Your task to perform on an android device: check data usage Image 0: 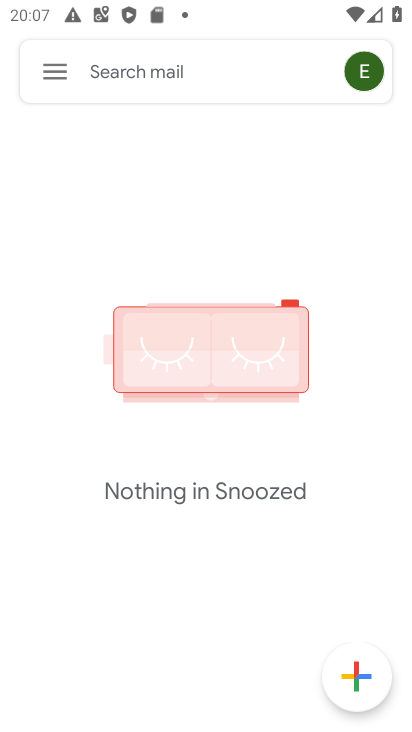
Step 0: press home button
Your task to perform on an android device: check data usage Image 1: 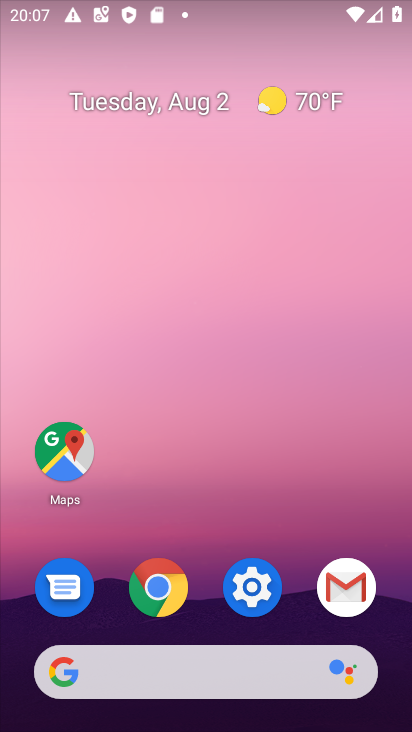
Step 1: click (266, 592)
Your task to perform on an android device: check data usage Image 2: 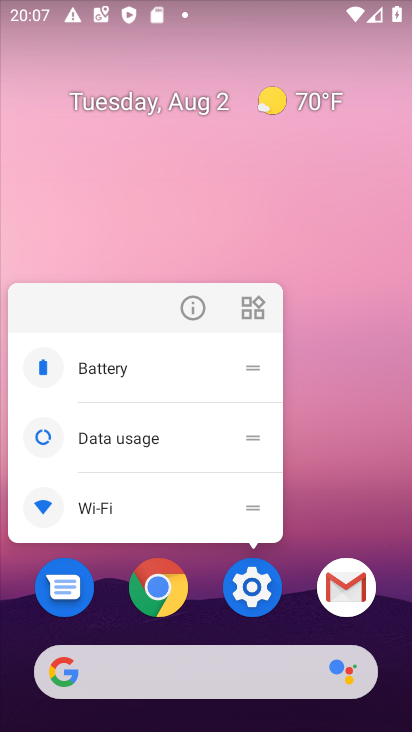
Step 2: click (268, 596)
Your task to perform on an android device: check data usage Image 3: 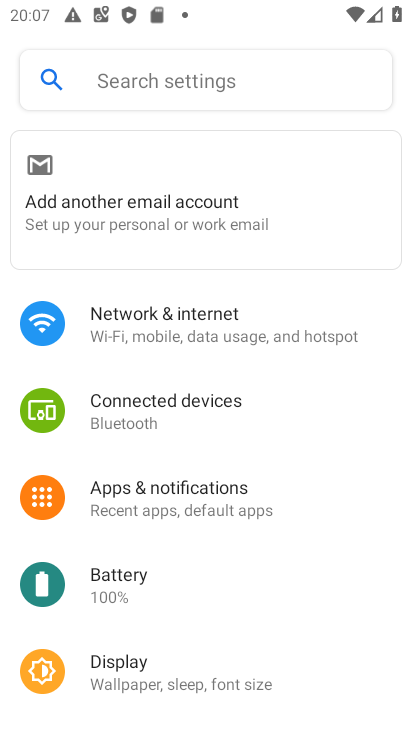
Step 3: click (159, 90)
Your task to perform on an android device: check data usage Image 4: 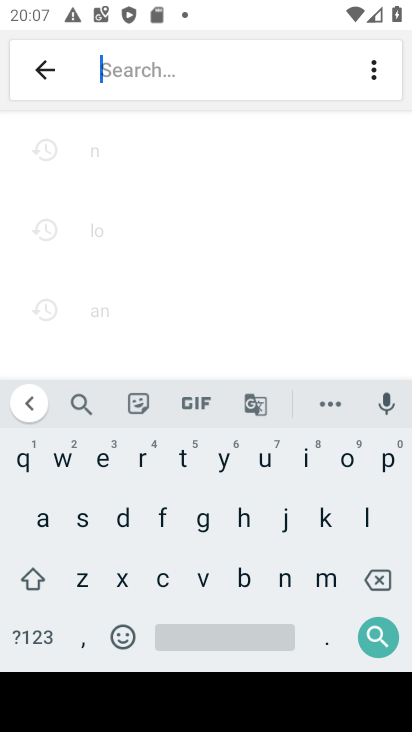
Step 4: click (120, 518)
Your task to perform on an android device: check data usage Image 5: 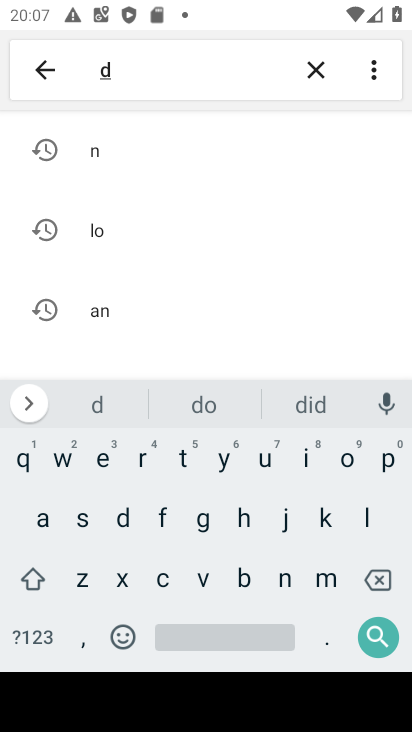
Step 5: click (43, 516)
Your task to perform on an android device: check data usage Image 6: 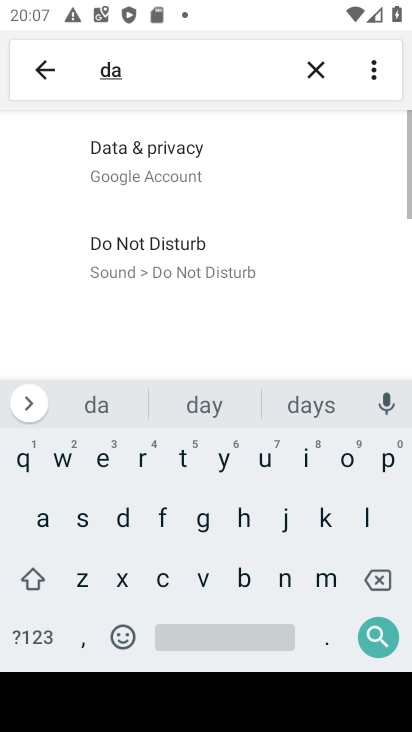
Step 6: click (180, 459)
Your task to perform on an android device: check data usage Image 7: 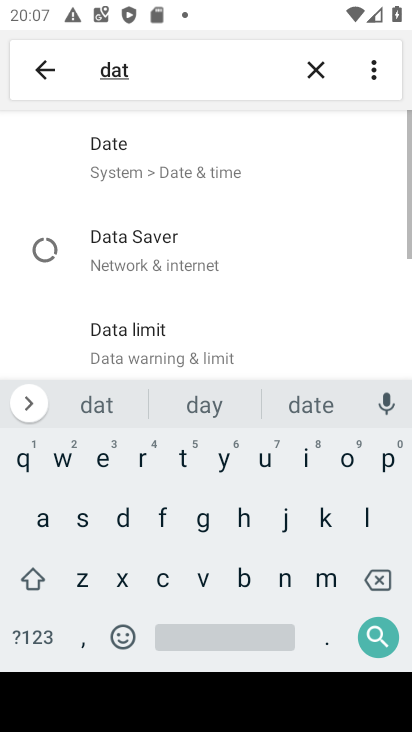
Step 7: click (38, 520)
Your task to perform on an android device: check data usage Image 8: 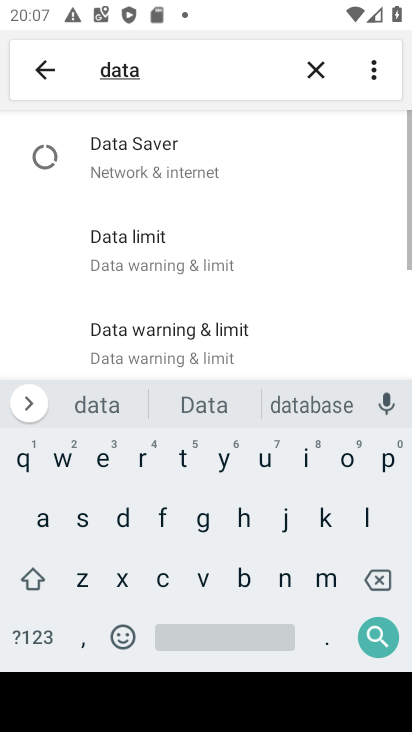
Step 8: click (203, 632)
Your task to perform on an android device: check data usage Image 9: 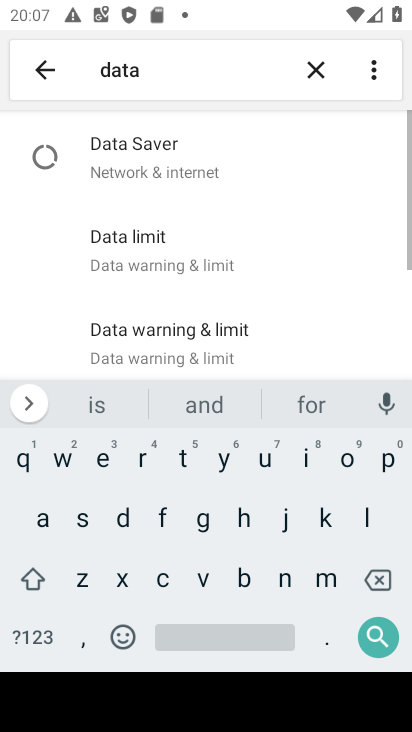
Step 9: click (254, 456)
Your task to perform on an android device: check data usage Image 10: 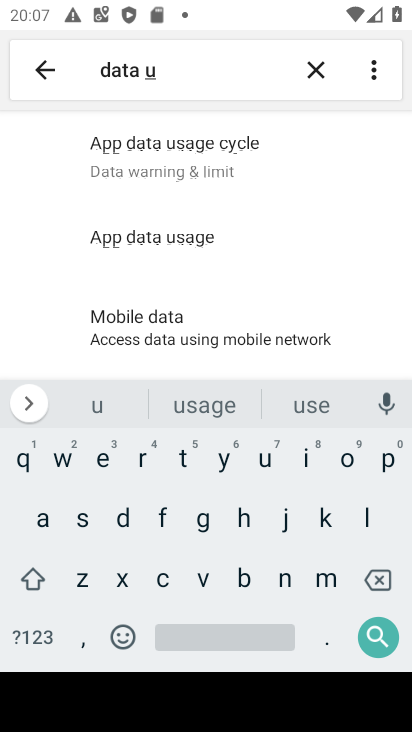
Step 10: click (140, 163)
Your task to perform on an android device: check data usage Image 11: 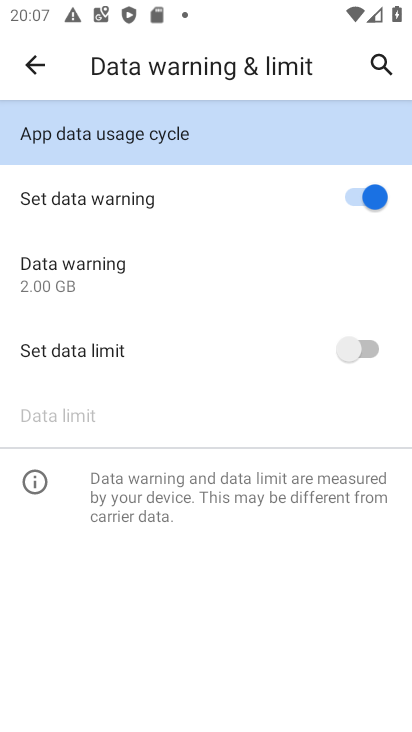
Step 11: click (78, 129)
Your task to perform on an android device: check data usage Image 12: 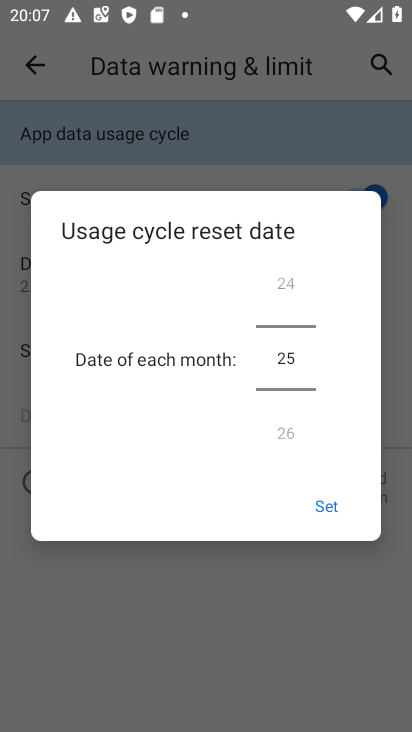
Step 12: click (317, 508)
Your task to perform on an android device: check data usage Image 13: 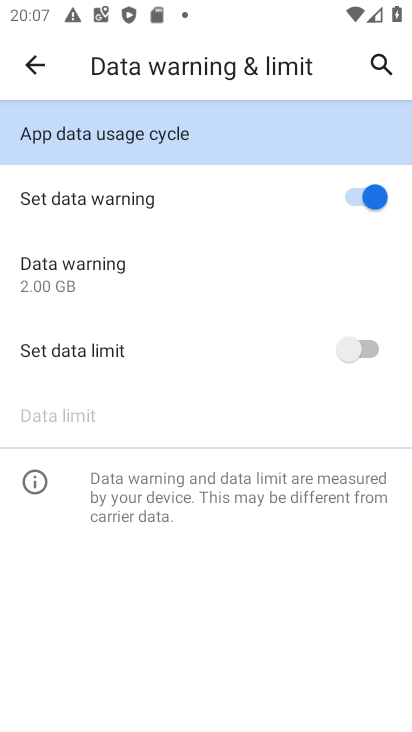
Step 13: task complete